Your task to perform on an android device: Open calendar and show me the third week of next month Image 0: 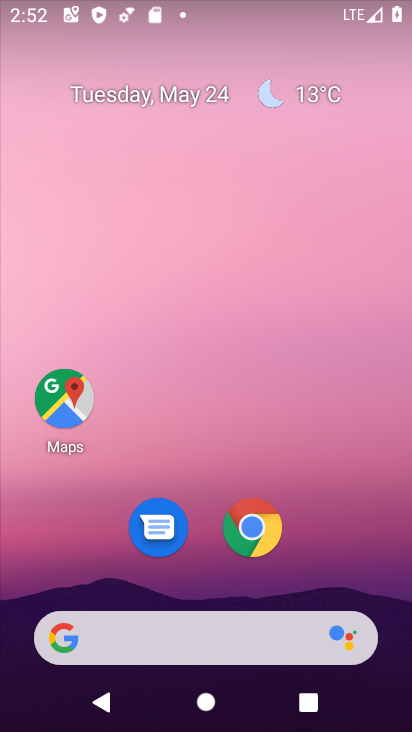
Step 0: drag from (321, 470) to (351, 57)
Your task to perform on an android device: Open calendar and show me the third week of next month Image 1: 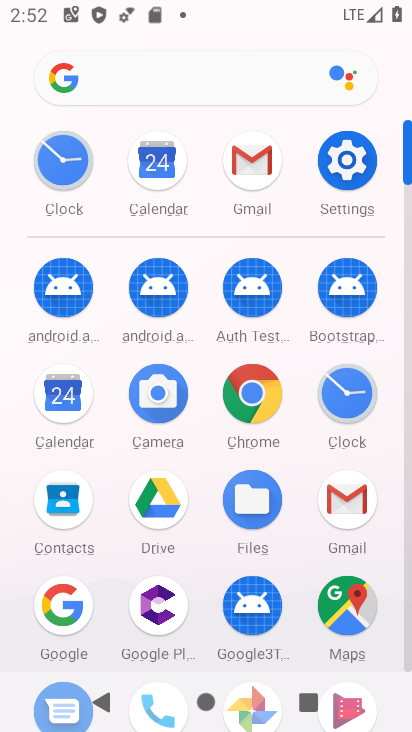
Step 1: click (54, 401)
Your task to perform on an android device: Open calendar and show me the third week of next month Image 2: 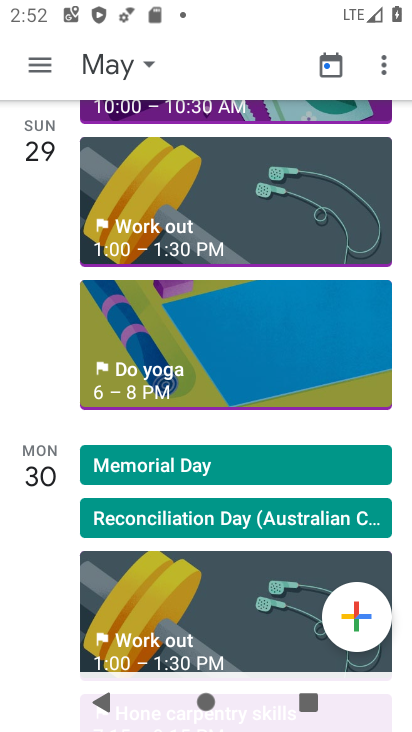
Step 2: click (144, 67)
Your task to perform on an android device: Open calendar and show me the third week of next month Image 3: 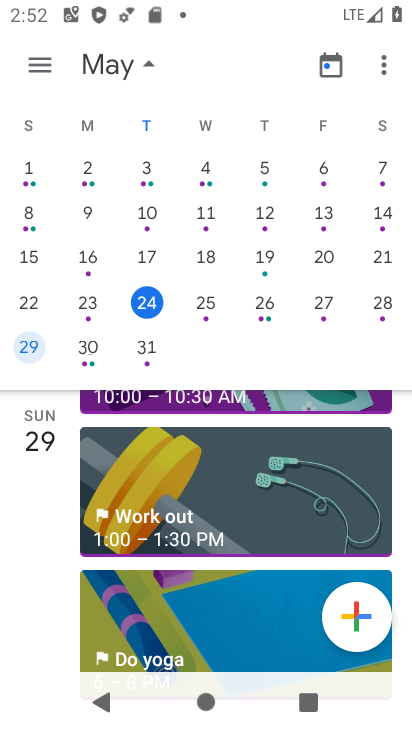
Step 3: drag from (389, 334) to (44, 286)
Your task to perform on an android device: Open calendar and show me the third week of next month Image 4: 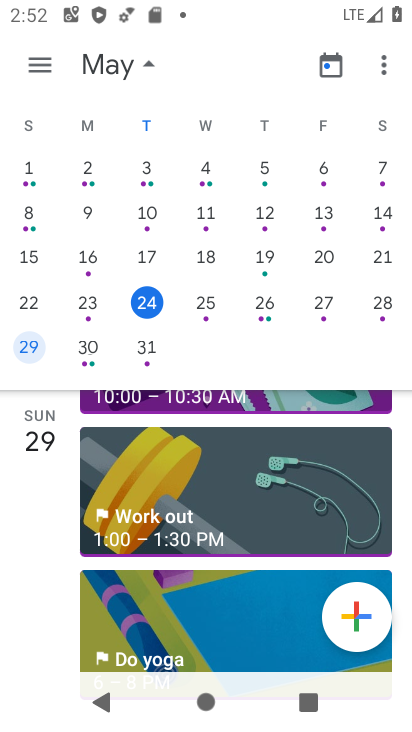
Step 4: drag from (389, 291) to (1, 316)
Your task to perform on an android device: Open calendar and show me the third week of next month Image 5: 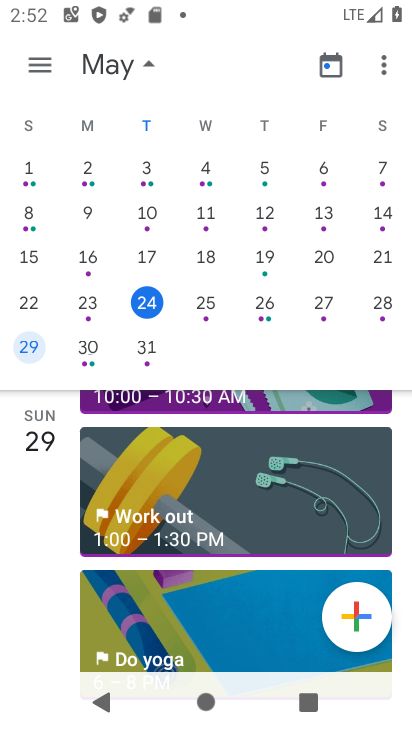
Step 5: drag from (379, 326) to (0, 359)
Your task to perform on an android device: Open calendar and show me the third week of next month Image 6: 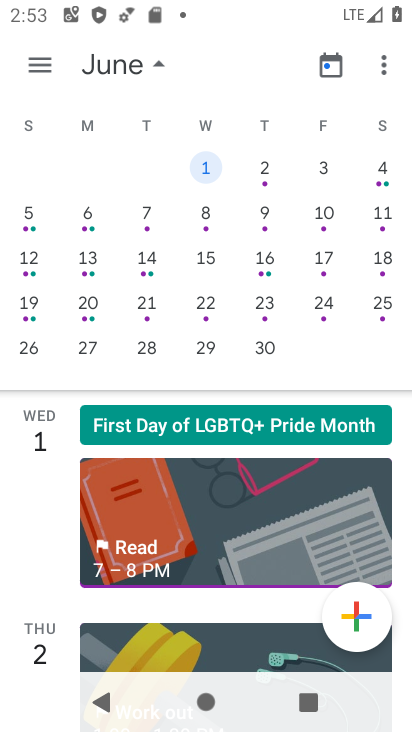
Step 6: click (38, 266)
Your task to perform on an android device: Open calendar and show me the third week of next month Image 7: 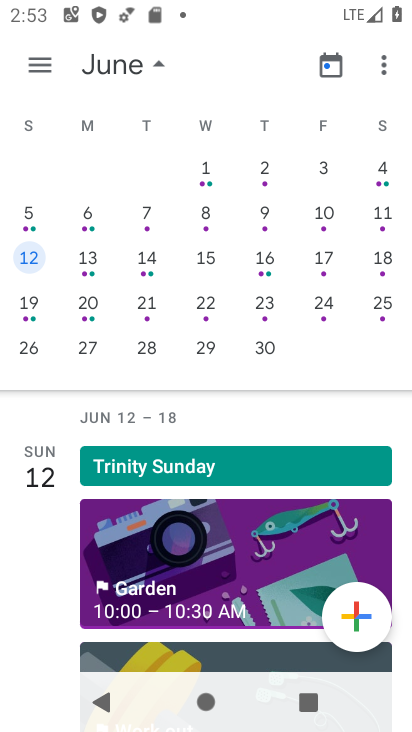
Step 7: task complete